Your task to perform on an android device: Open Chrome and go to settings Image 0: 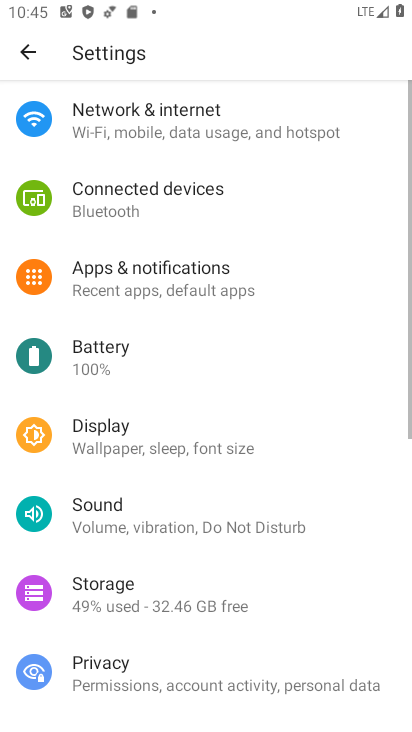
Step 0: press home button
Your task to perform on an android device: Open Chrome and go to settings Image 1: 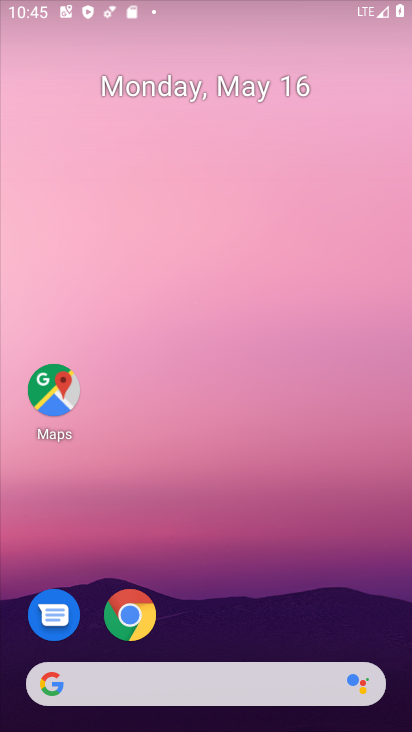
Step 1: drag from (234, 689) to (188, 221)
Your task to perform on an android device: Open Chrome and go to settings Image 2: 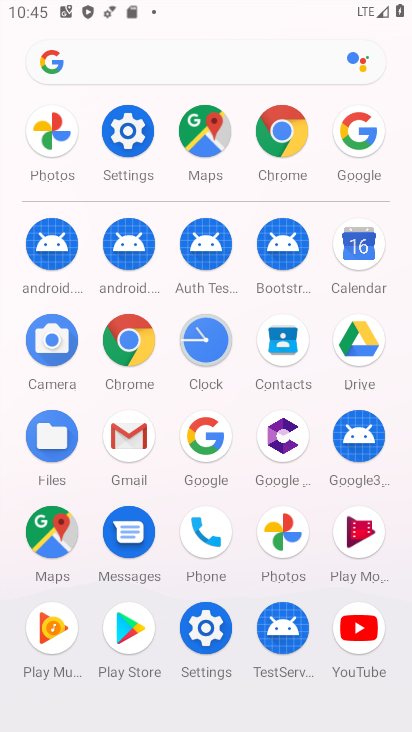
Step 2: click (279, 184)
Your task to perform on an android device: Open Chrome and go to settings Image 3: 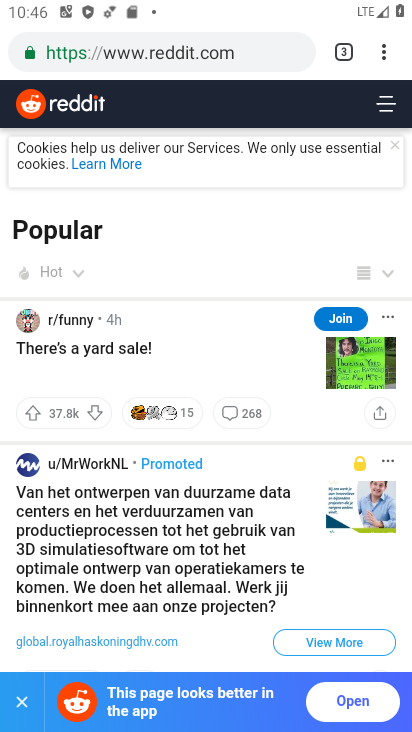
Step 3: click (380, 44)
Your task to perform on an android device: Open Chrome and go to settings Image 4: 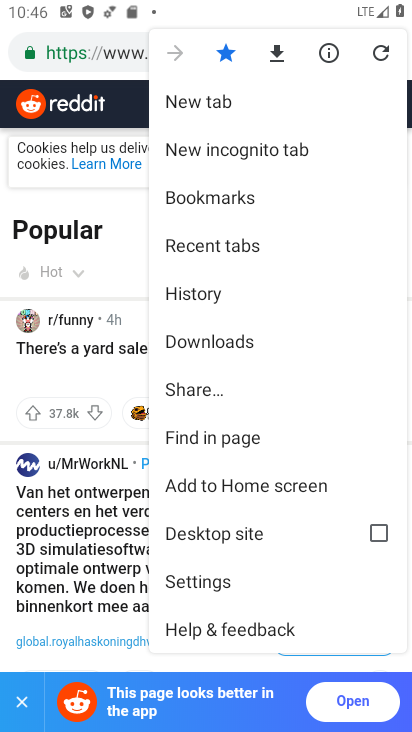
Step 4: drag from (246, 454) to (298, 228)
Your task to perform on an android device: Open Chrome and go to settings Image 5: 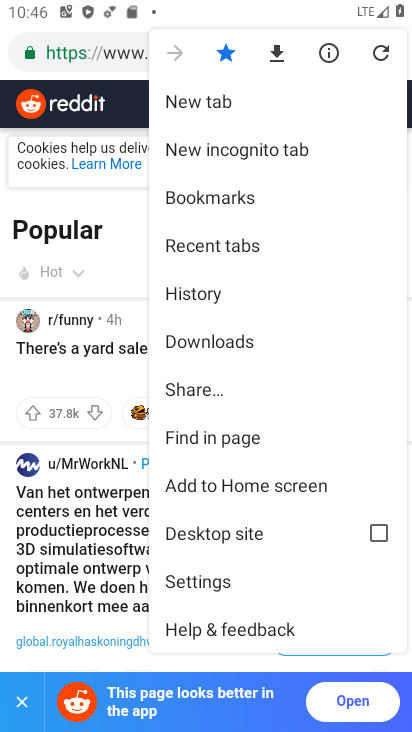
Step 5: click (225, 579)
Your task to perform on an android device: Open Chrome and go to settings Image 6: 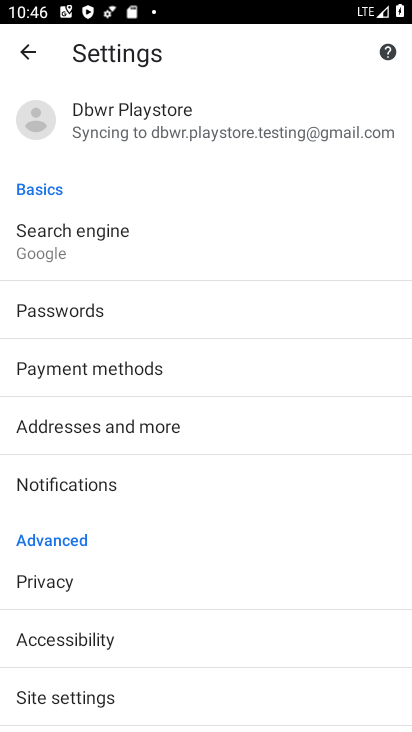
Step 6: task complete